Your task to perform on an android device: Open location settings Image 0: 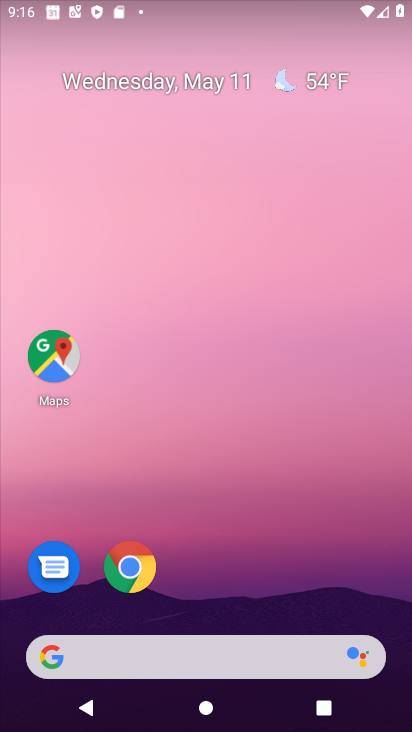
Step 0: drag from (224, 599) to (273, 15)
Your task to perform on an android device: Open location settings Image 1: 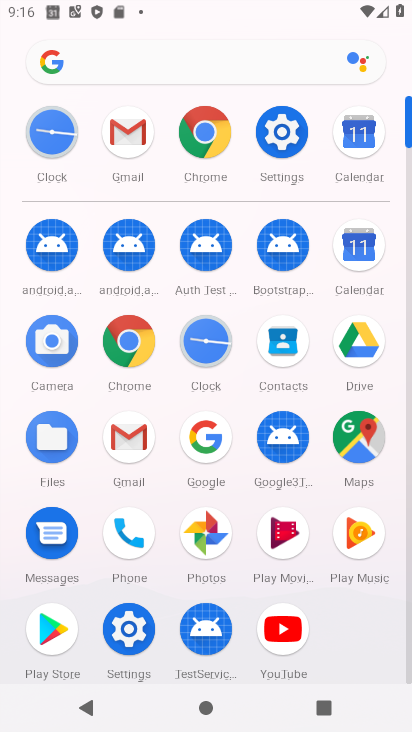
Step 1: click (133, 633)
Your task to perform on an android device: Open location settings Image 2: 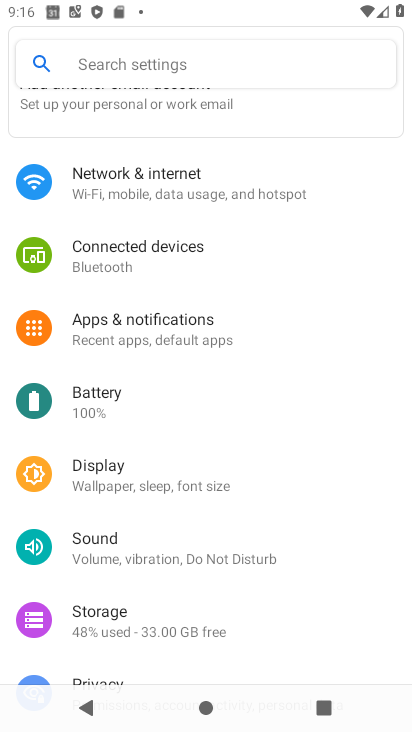
Step 2: drag from (164, 595) to (239, 111)
Your task to perform on an android device: Open location settings Image 3: 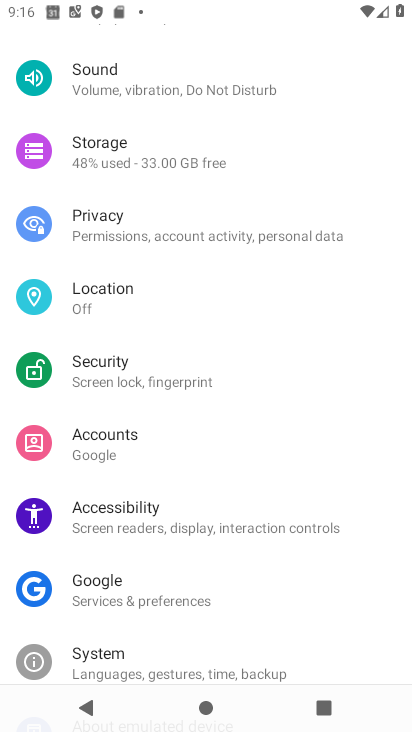
Step 3: click (132, 300)
Your task to perform on an android device: Open location settings Image 4: 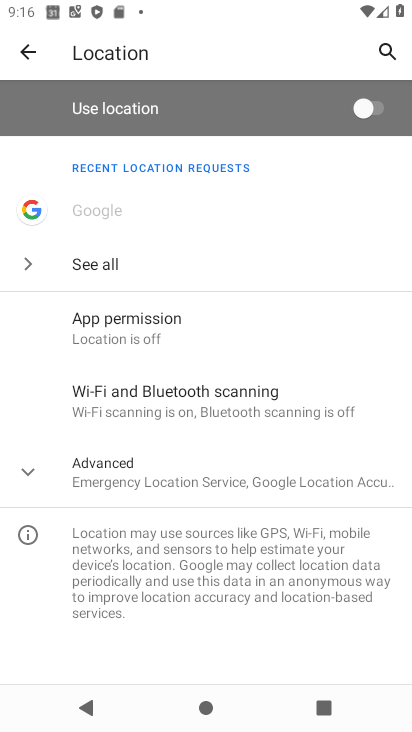
Step 4: task complete